Your task to perform on an android device: Go to CNN.com Image 0: 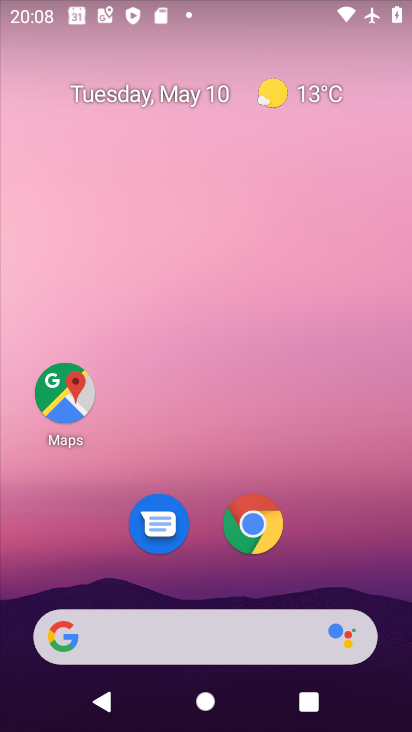
Step 0: click (241, 640)
Your task to perform on an android device: Go to CNN.com Image 1: 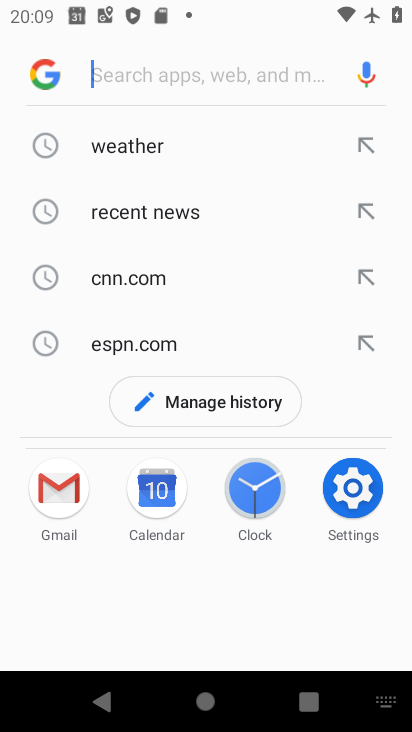
Step 1: type "cnn.com"
Your task to perform on an android device: Go to CNN.com Image 2: 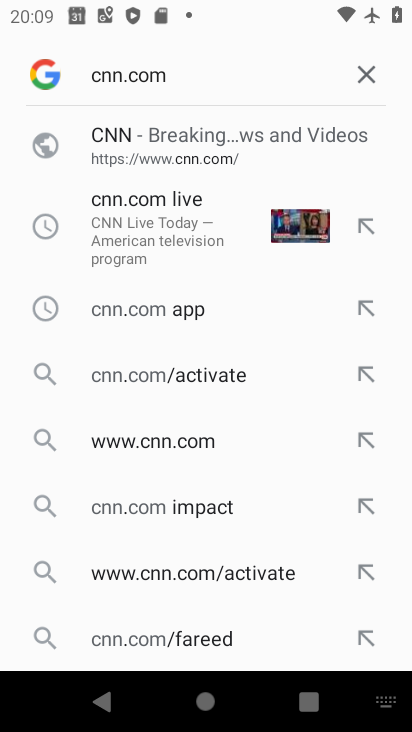
Step 2: click (137, 143)
Your task to perform on an android device: Go to CNN.com Image 3: 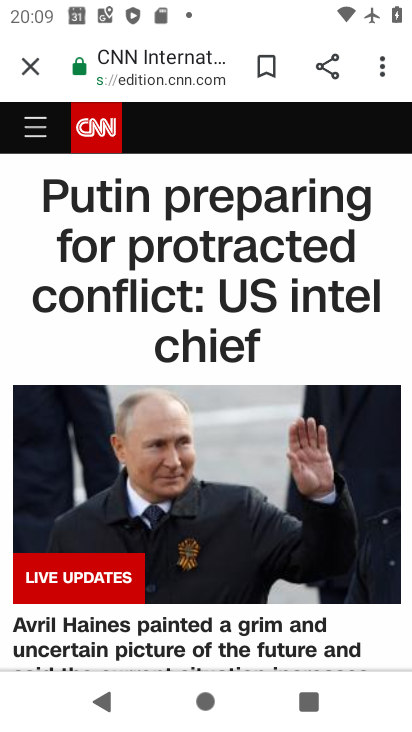
Step 3: task complete